Your task to perform on an android device: turn off location Image 0: 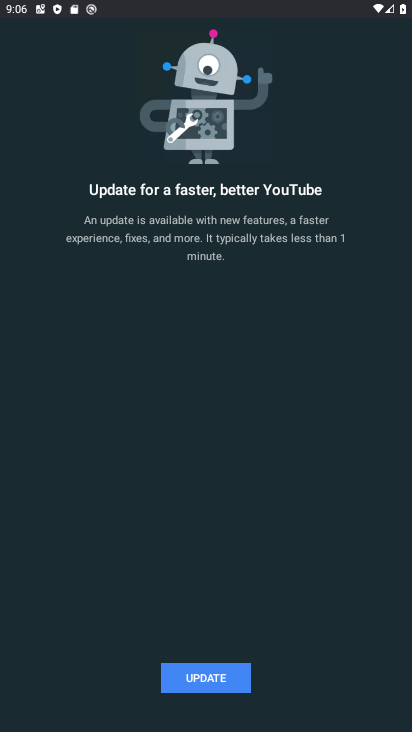
Step 0: press home button
Your task to perform on an android device: turn off location Image 1: 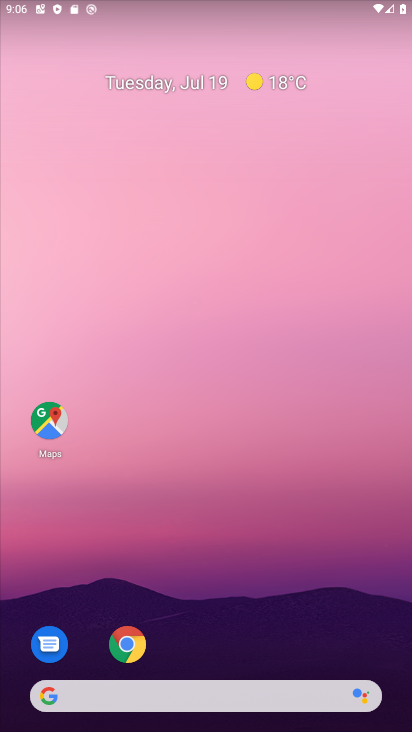
Step 1: drag from (212, 713) to (186, 192)
Your task to perform on an android device: turn off location Image 2: 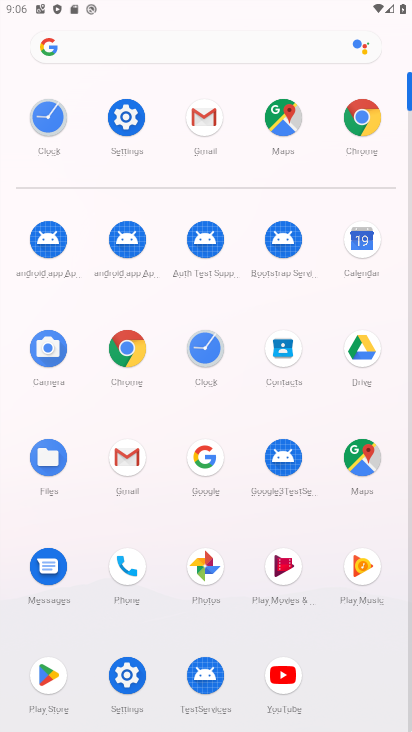
Step 2: click (130, 118)
Your task to perform on an android device: turn off location Image 3: 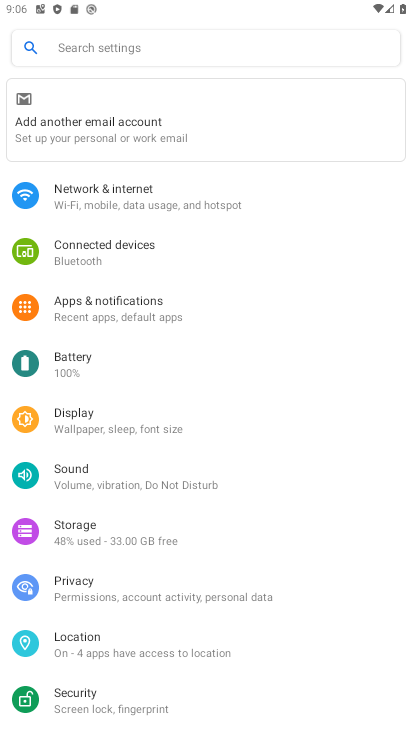
Step 3: click (64, 639)
Your task to perform on an android device: turn off location Image 4: 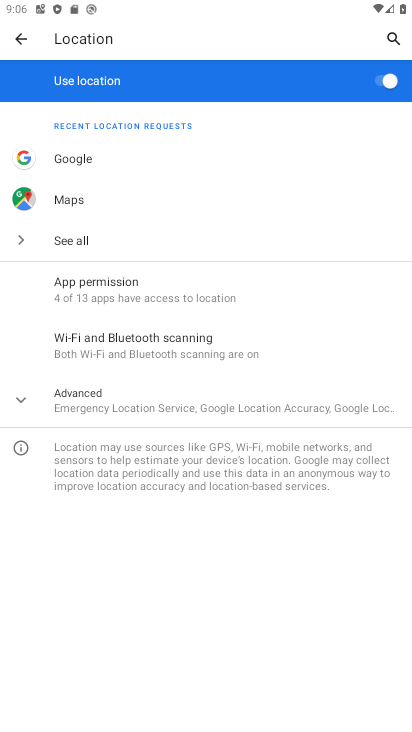
Step 4: click (380, 75)
Your task to perform on an android device: turn off location Image 5: 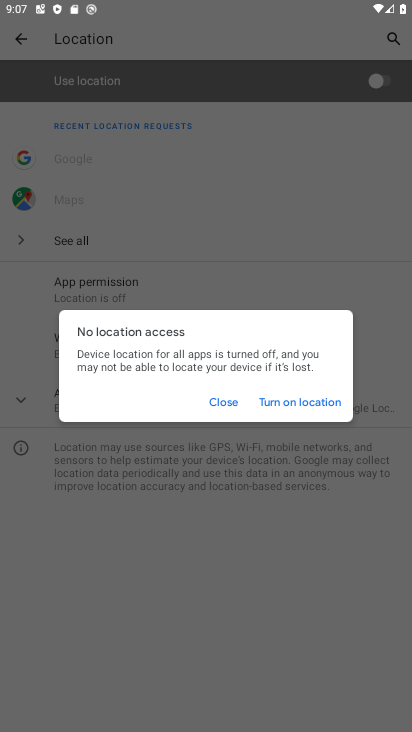
Step 5: task complete